Your task to perform on an android device: empty trash in the gmail app Image 0: 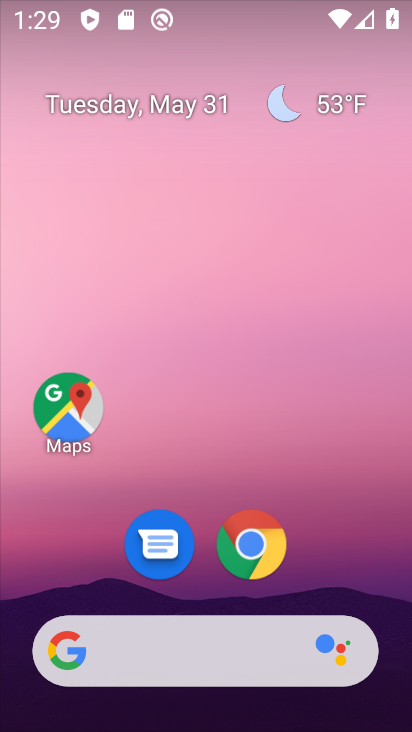
Step 0: drag from (337, 559) to (285, 165)
Your task to perform on an android device: empty trash in the gmail app Image 1: 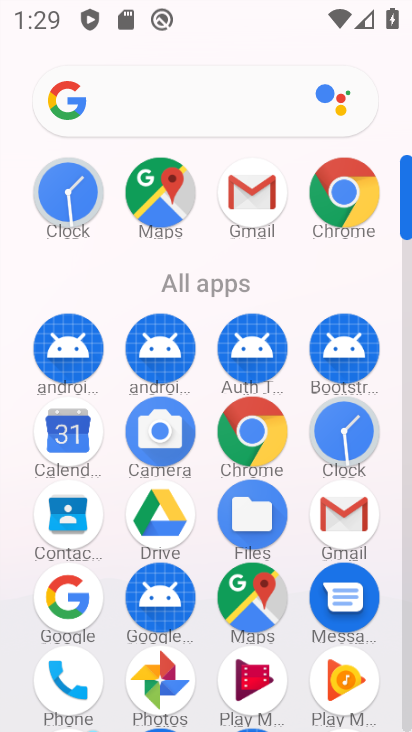
Step 1: click (349, 514)
Your task to perform on an android device: empty trash in the gmail app Image 2: 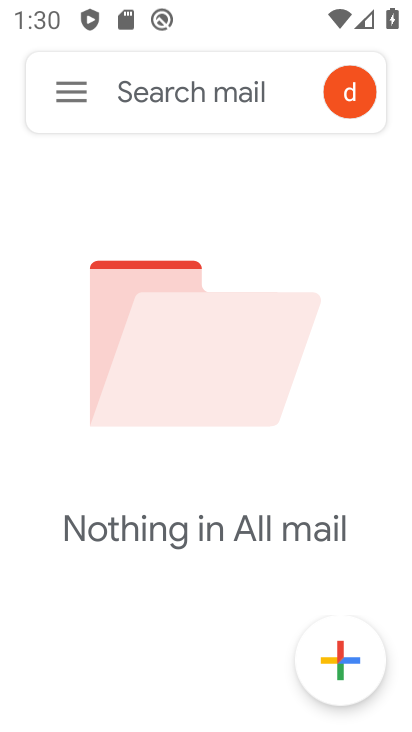
Step 2: click (71, 80)
Your task to perform on an android device: empty trash in the gmail app Image 3: 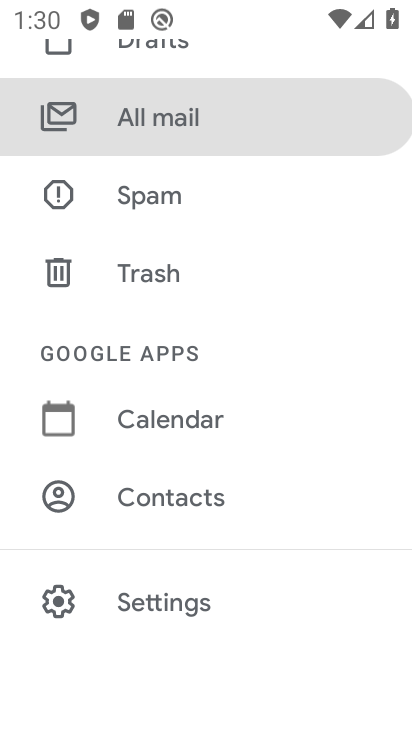
Step 3: click (188, 304)
Your task to perform on an android device: empty trash in the gmail app Image 4: 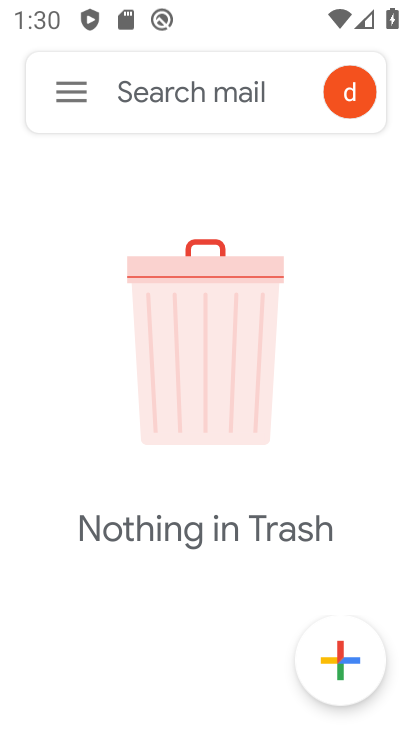
Step 4: task complete